Your task to perform on an android device: toggle sleep mode Image 0: 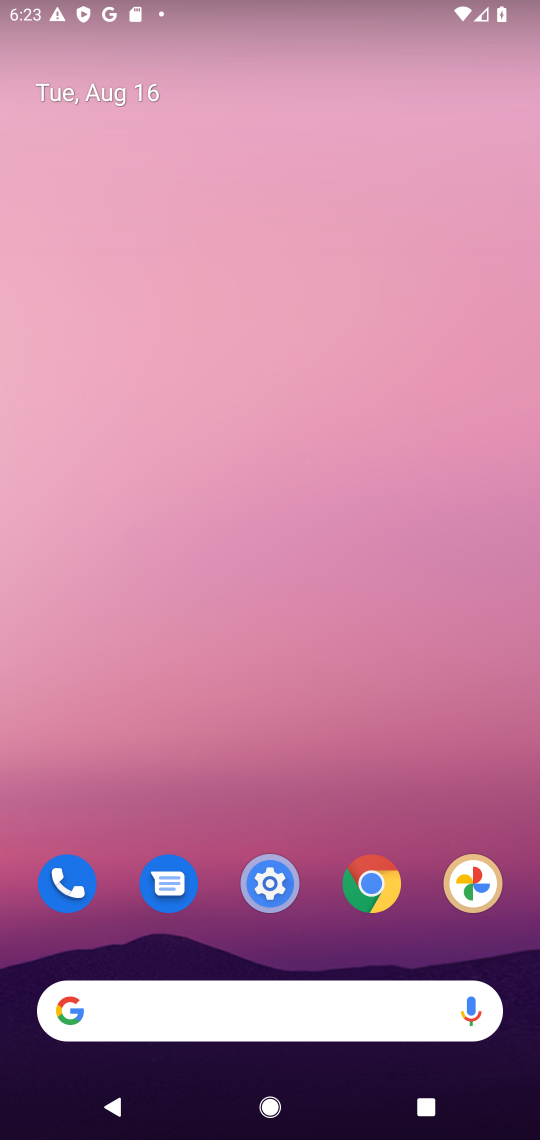
Step 0: click (266, 886)
Your task to perform on an android device: toggle sleep mode Image 1: 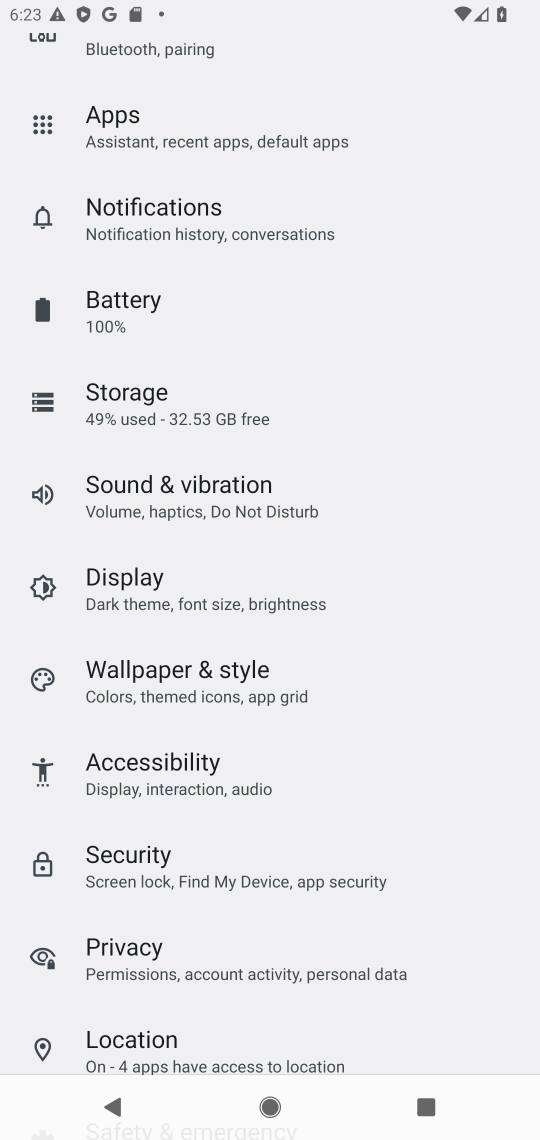
Step 1: drag from (271, 644) to (335, 555)
Your task to perform on an android device: toggle sleep mode Image 2: 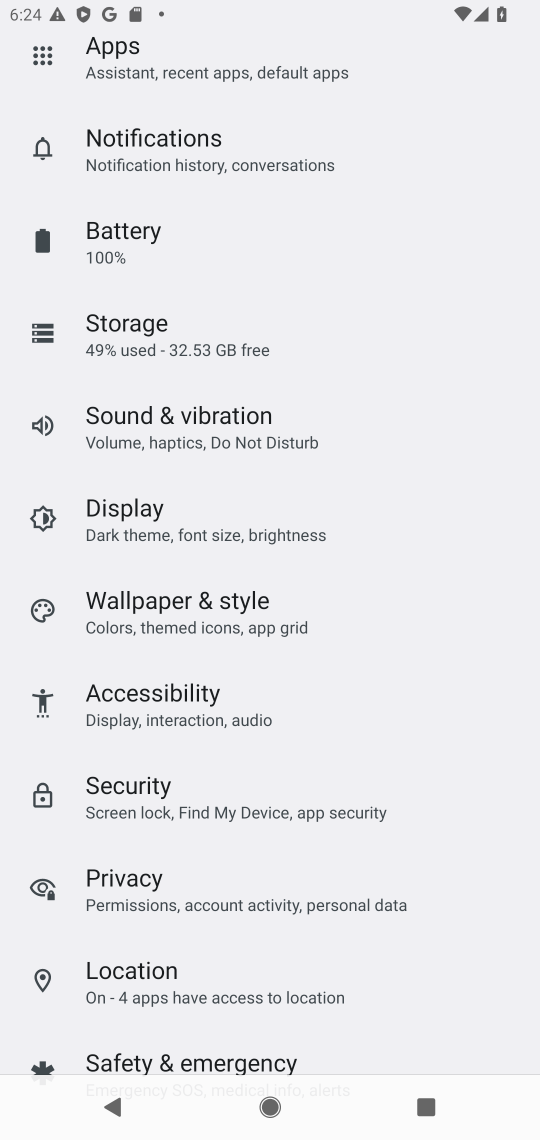
Step 2: drag from (230, 804) to (292, 619)
Your task to perform on an android device: toggle sleep mode Image 3: 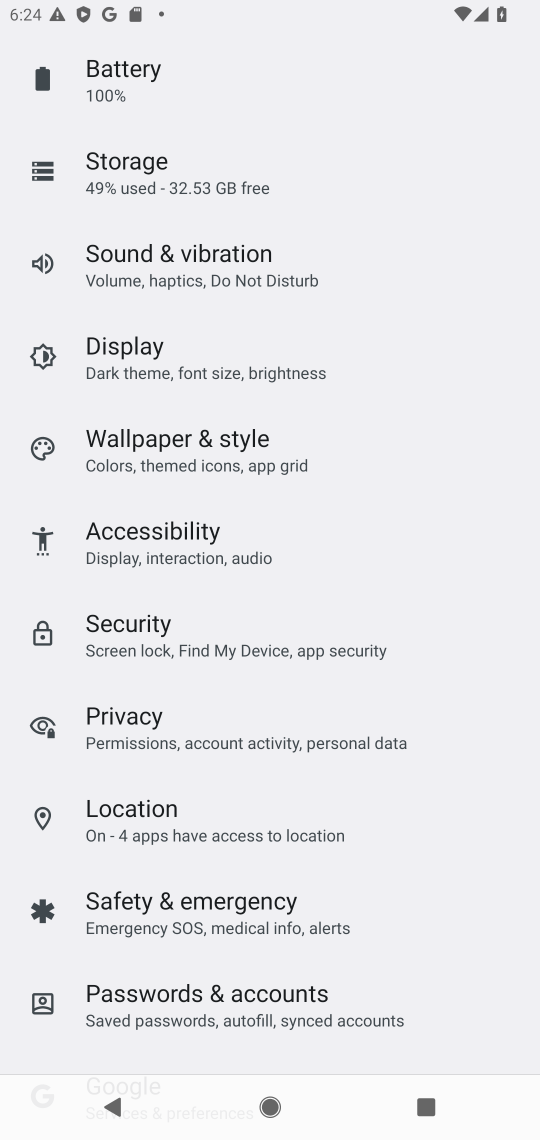
Step 3: click (203, 530)
Your task to perform on an android device: toggle sleep mode Image 4: 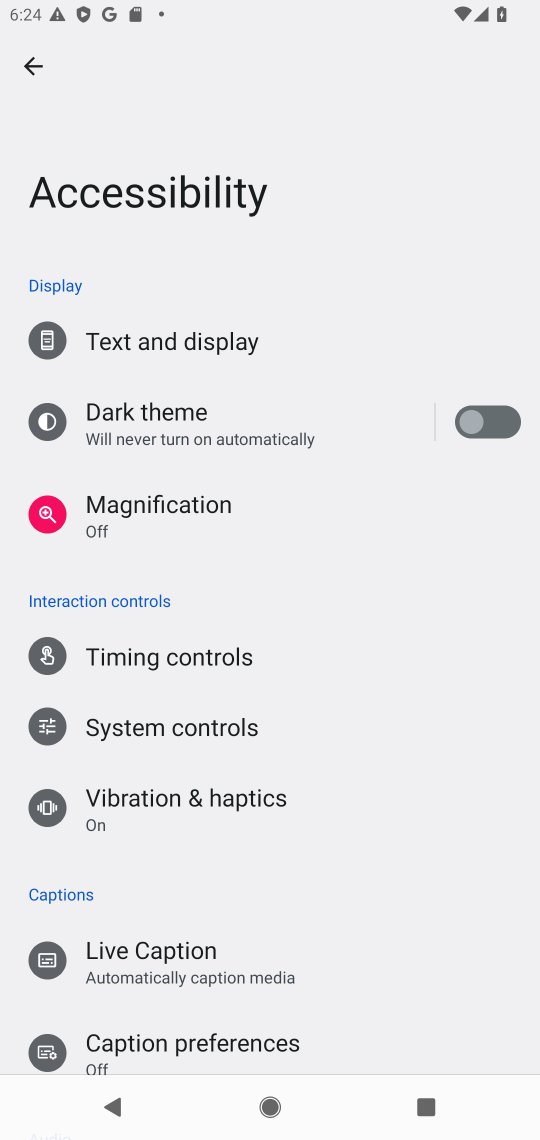
Step 4: drag from (199, 789) to (268, 609)
Your task to perform on an android device: toggle sleep mode Image 5: 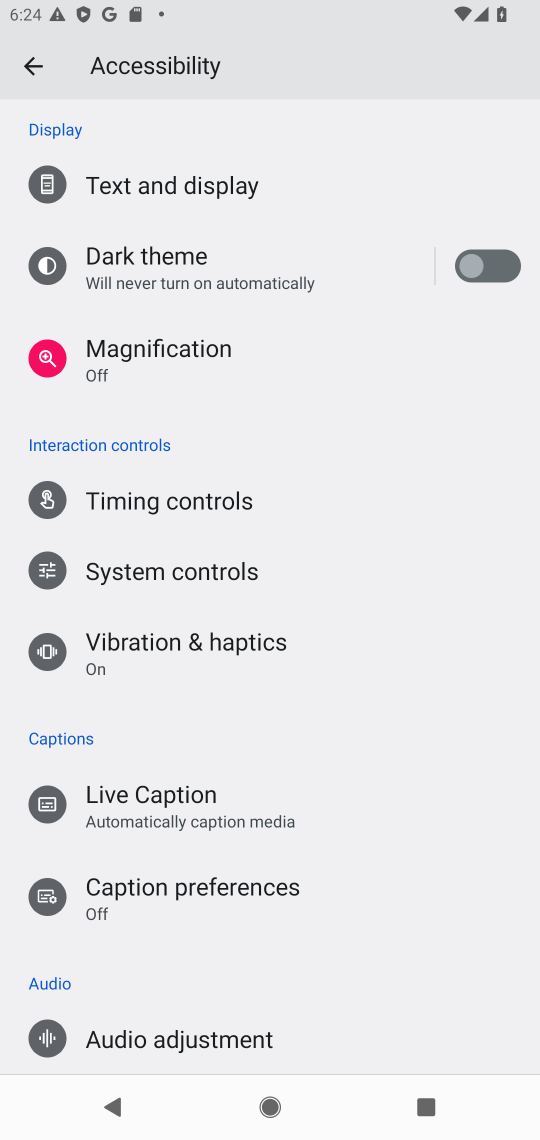
Step 5: drag from (281, 912) to (301, 723)
Your task to perform on an android device: toggle sleep mode Image 6: 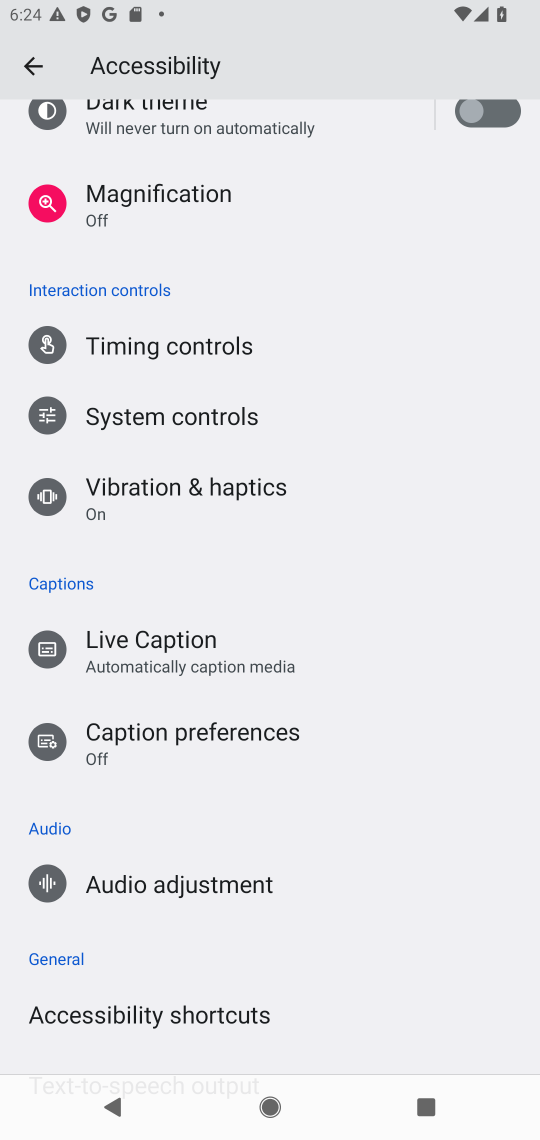
Step 6: drag from (206, 893) to (330, 642)
Your task to perform on an android device: toggle sleep mode Image 7: 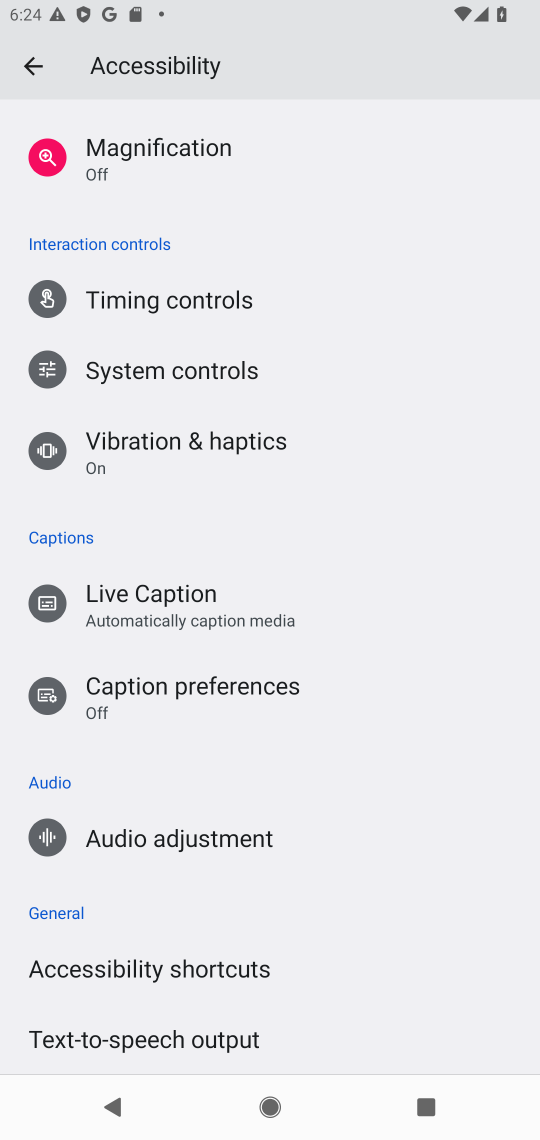
Step 7: press back button
Your task to perform on an android device: toggle sleep mode Image 8: 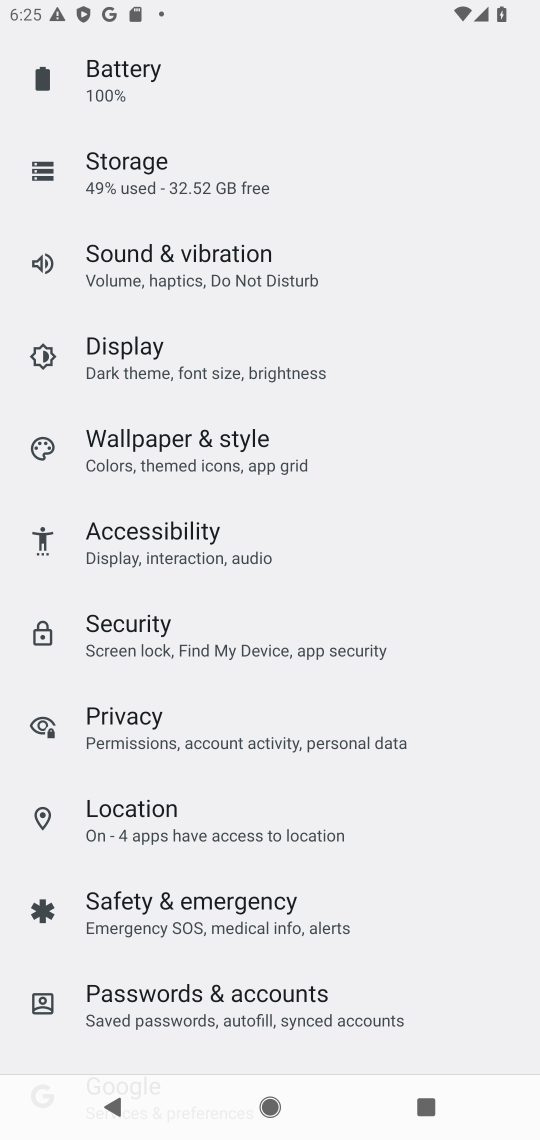
Step 8: click (226, 384)
Your task to perform on an android device: toggle sleep mode Image 9: 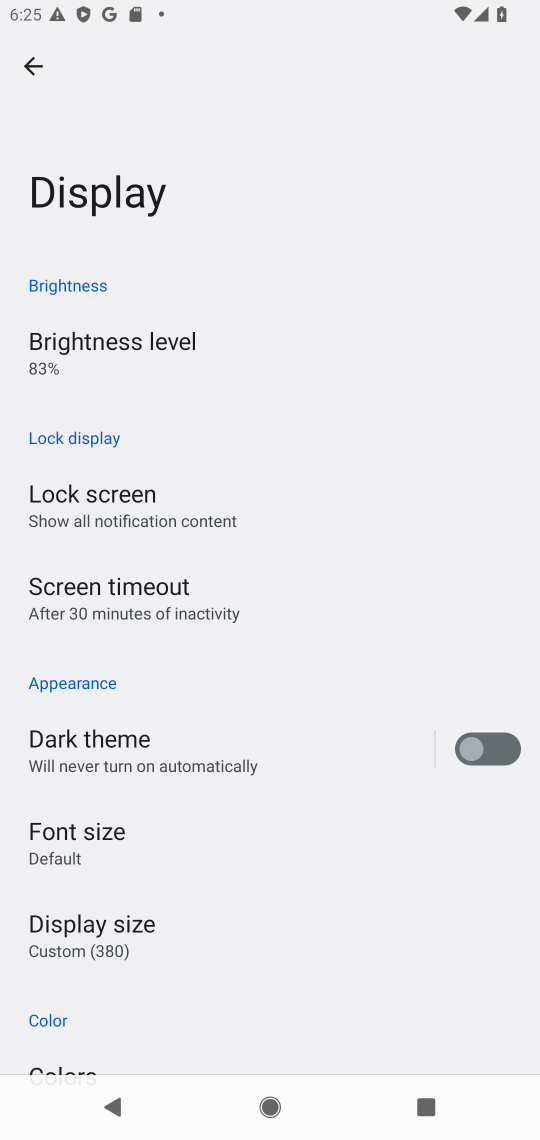
Step 9: task complete